Your task to perform on an android device: find which apps use the phone's location Image 0: 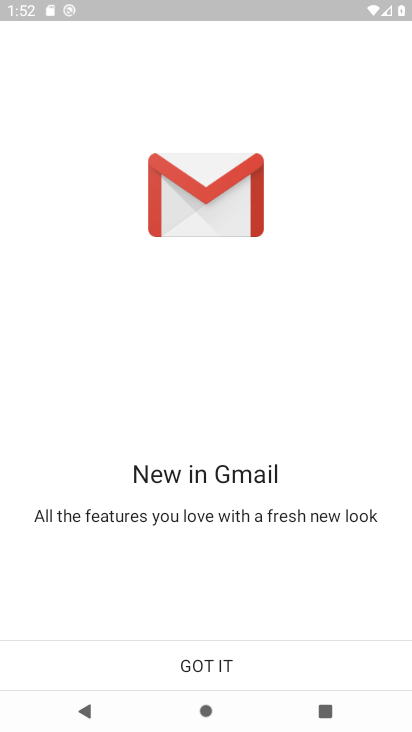
Step 0: press home button
Your task to perform on an android device: find which apps use the phone's location Image 1: 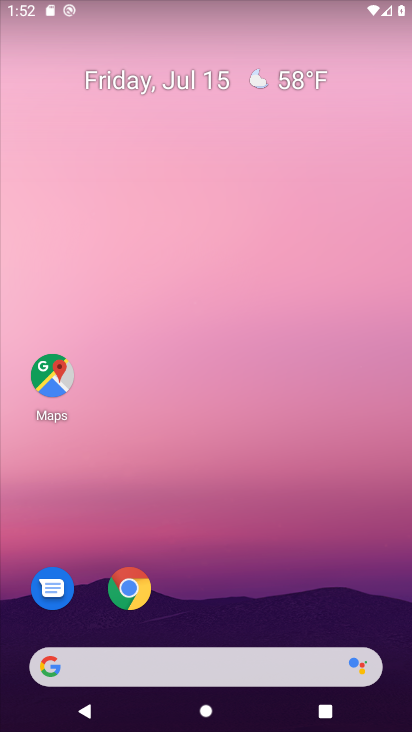
Step 1: drag from (283, 619) to (339, 255)
Your task to perform on an android device: find which apps use the phone's location Image 2: 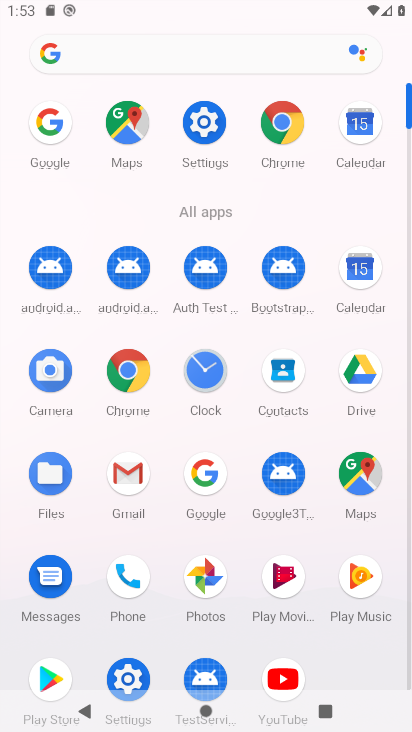
Step 2: click (211, 126)
Your task to perform on an android device: find which apps use the phone's location Image 3: 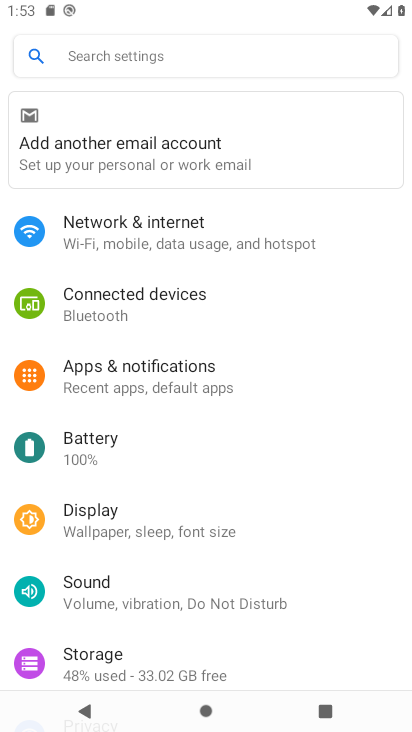
Step 3: drag from (116, 670) to (169, 311)
Your task to perform on an android device: find which apps use the phone's location Image 4: 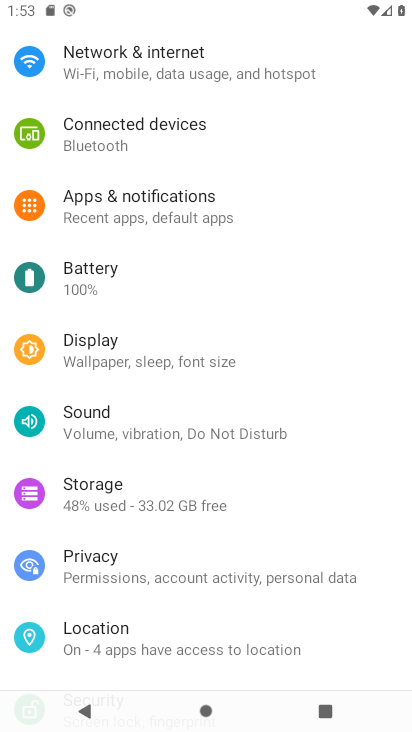
Step 4: click (132, 628)
Your task to perform on an android device: find which apps use the phone's location Image 5: 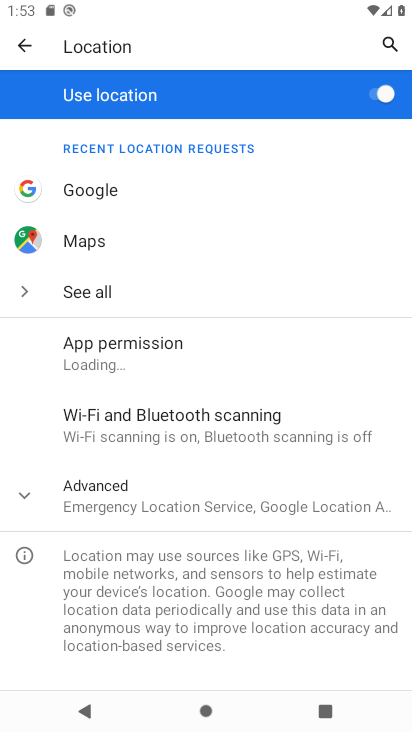
Step 5: click (179, 347)
Your task to perform on an android device: find which apps use the phone's location Image 6: 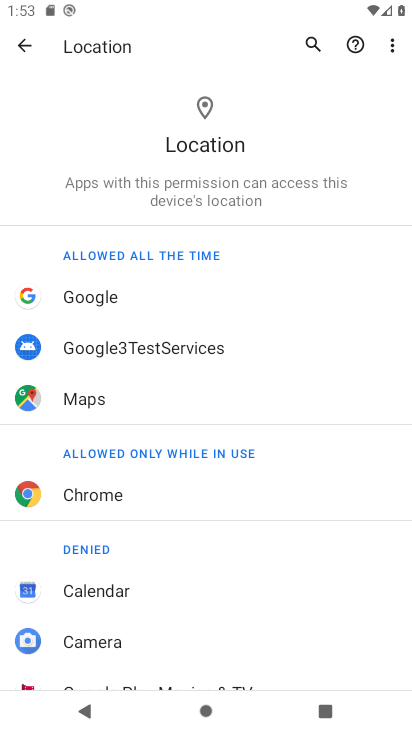
Step 6: task complete